Your task to perform on an android device: snooze an email in the gmail app Image 0: 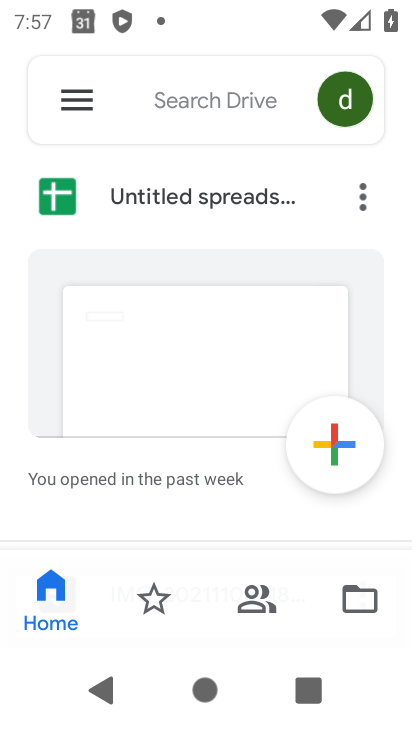
Step 0: drag from (238, 497) to (331, 81)
Your task to perform on an android device: snooze an email in the gmail app Image 1: 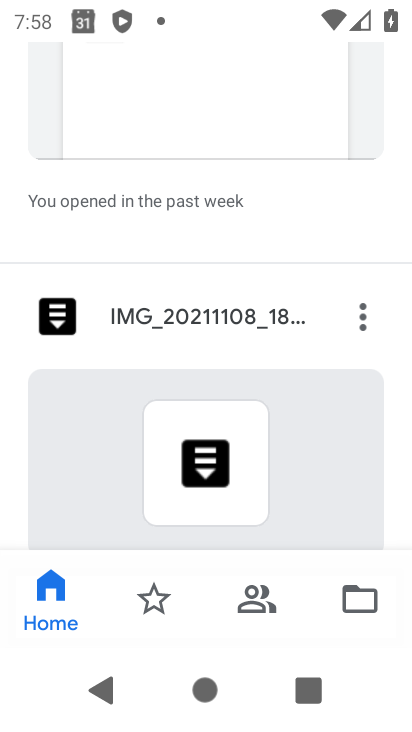
Step 1: press home button
Your task to perform on an android device: snooze an email in the gmail app Image 2: 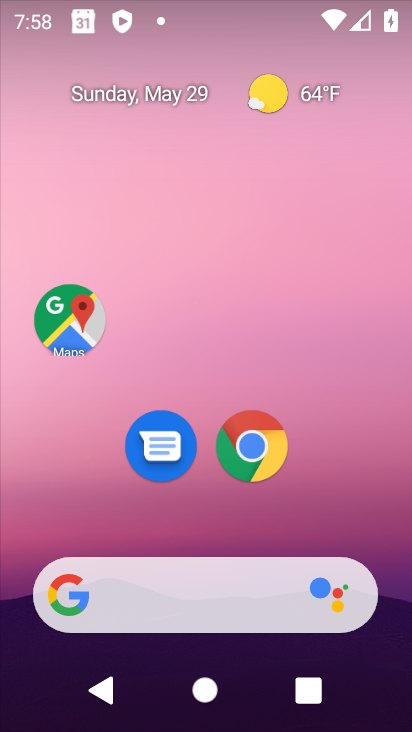
Step 2: drag from (198, 524) to (214, 11)
Your task to perform on an android device: snooze an email in the gmail app Image 3: 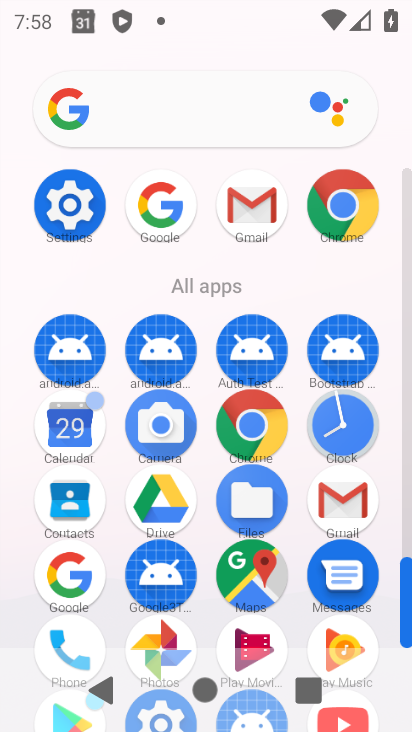
Step 3: click (341, 478)
Your task to perform on an android device: snooze an email in the gmail app Image 4: 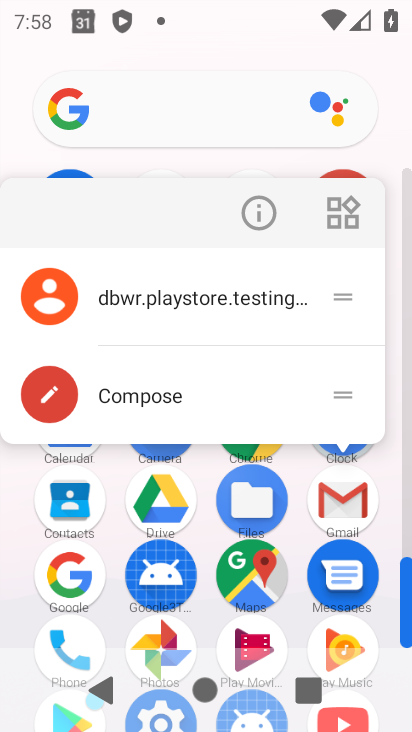
Step 4: click (255, 220)
Your task to perform on an android device: snooze an email in the gmail app Image 5: 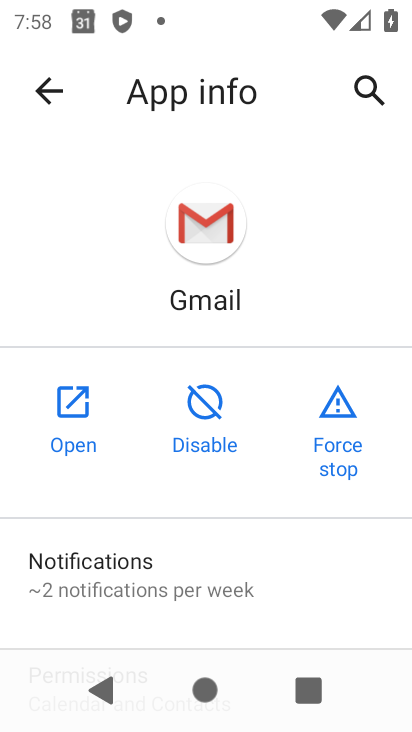
Step 5: click (67, 418)
Your task to perform on an android device: snooze an email in the gmail app Image 6: 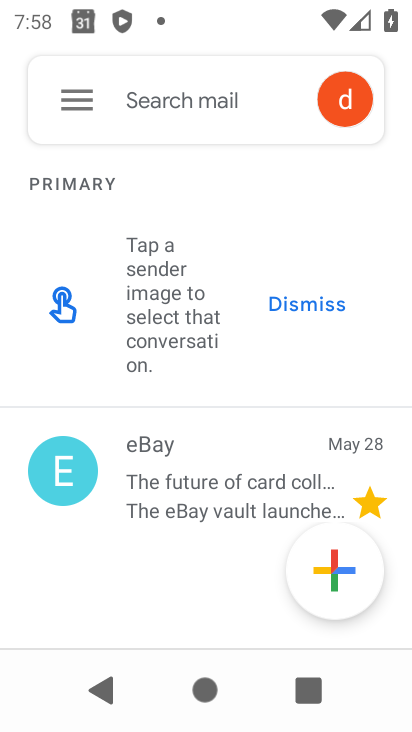
Step 6: click (64, 109)
Your task to perform on an android device: snooze an email in the gmail app Image 7: 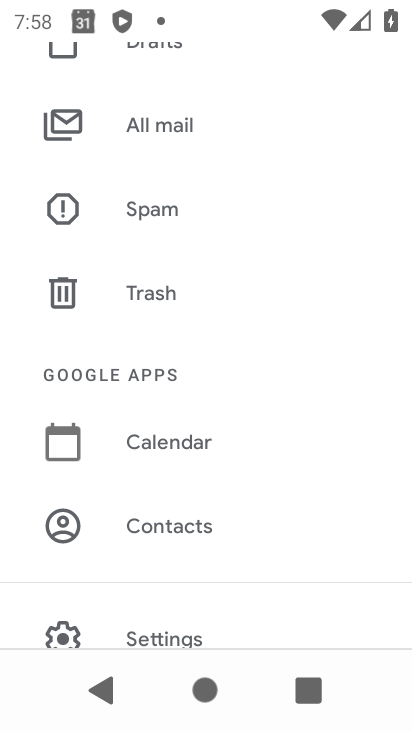
Step 7: drag from (169, 272) to (271, 665)
Your task to perform on an android device: snooze an email in the gmail app Image 8: 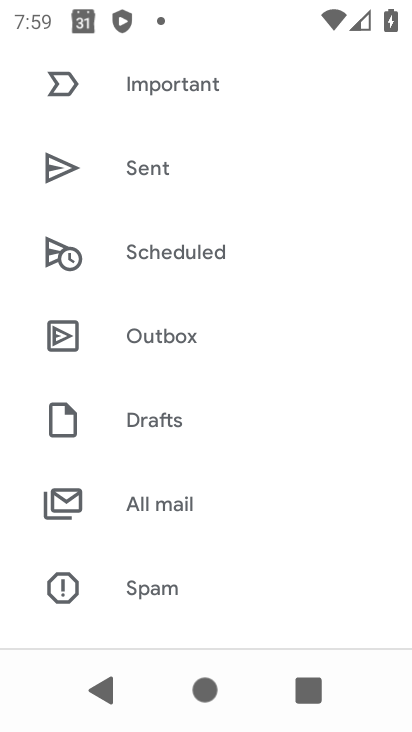
Step 8: drag from (202, 210) to (303, 663)
Your task to perform on an android device: snooze an email in the gmail app Image 9: 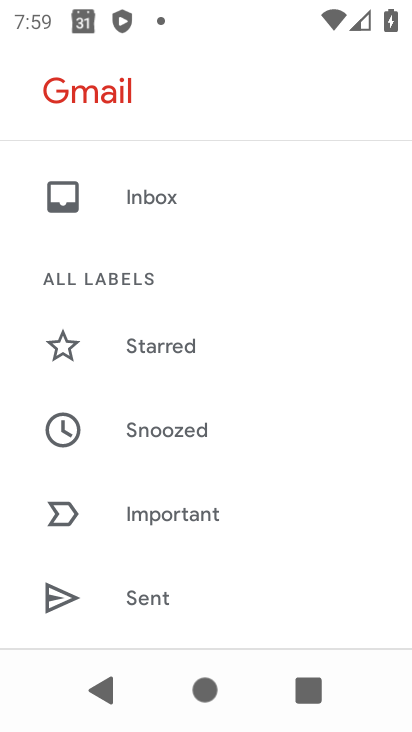
Step 9: click (161, 432)
Your task to perform on an android device: snooze an email in the gmail app Image 10: 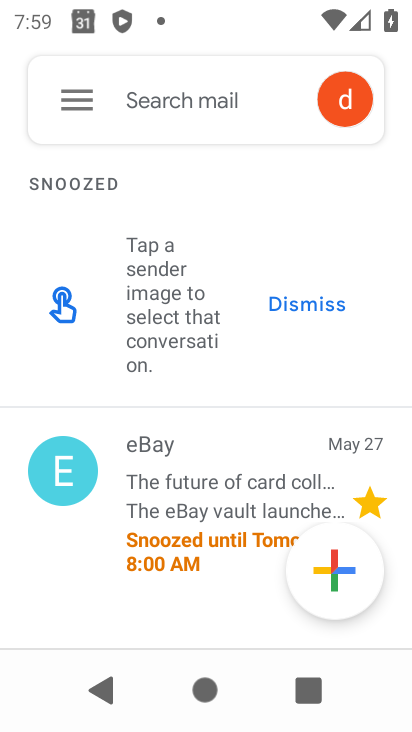
Step 10: task complete